Your task to perform on an android device: check the backup settings in the google photos Image 0: 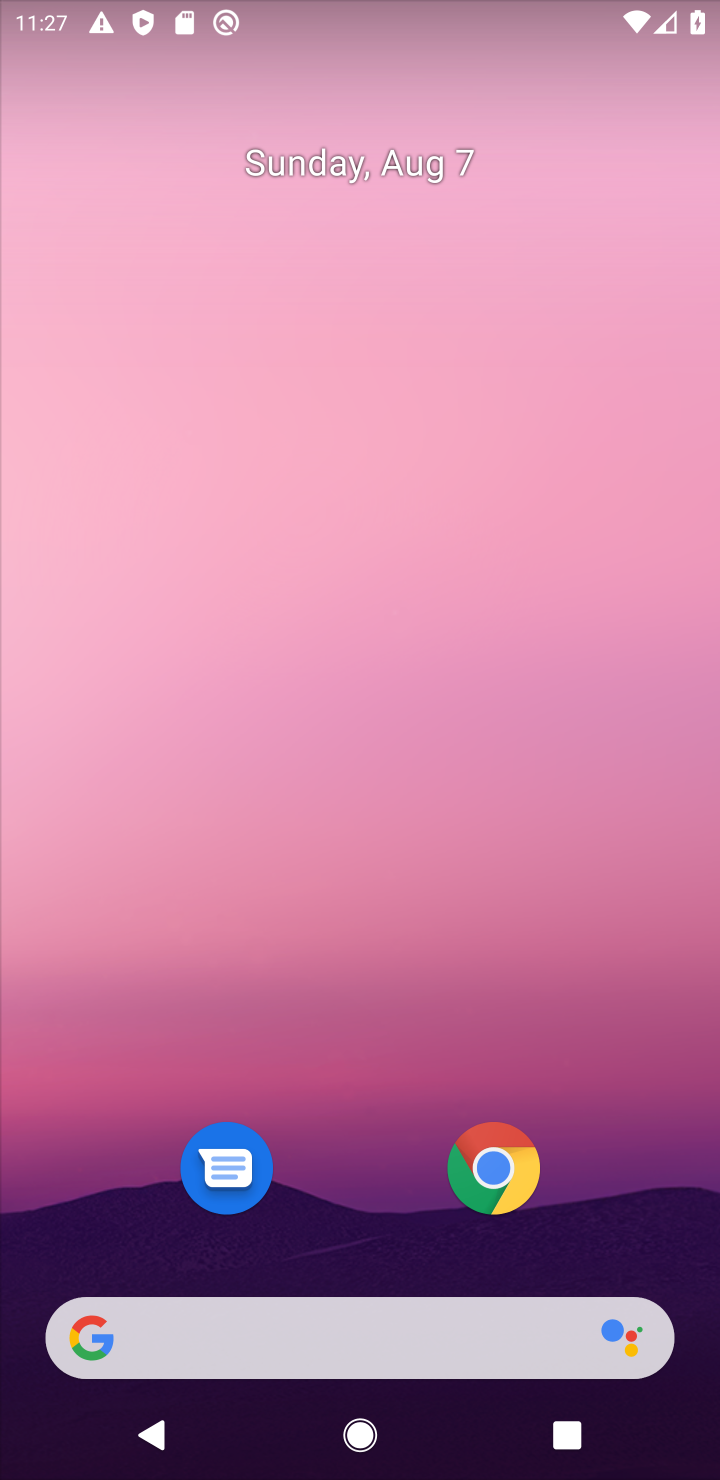
Step 0: drag from (41, 1405) to (383, 471)
Your task to perform on an android device: check the backup settings in the google photos Image 1: 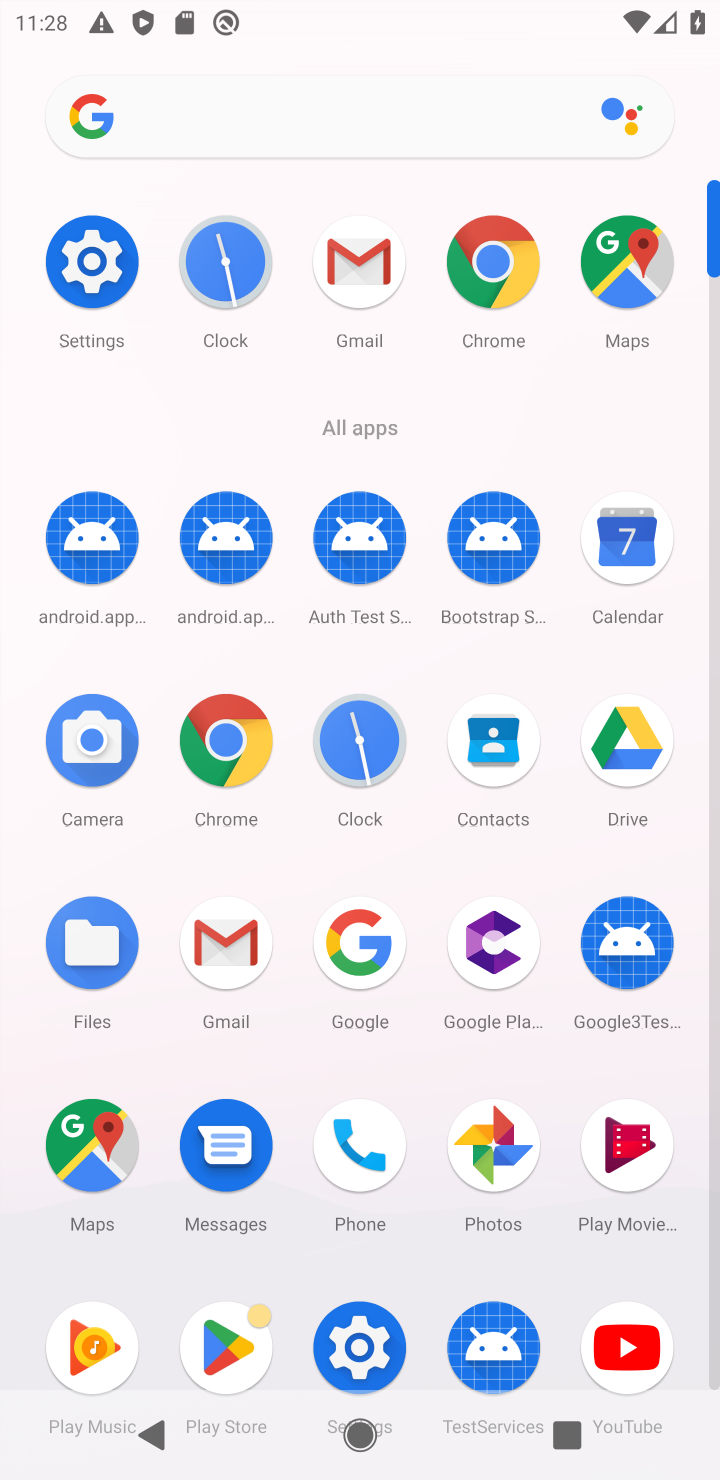
Step 1: click (490, 1133)
Your task to perform on an android device: check the backup settings in the google photos Image 2: 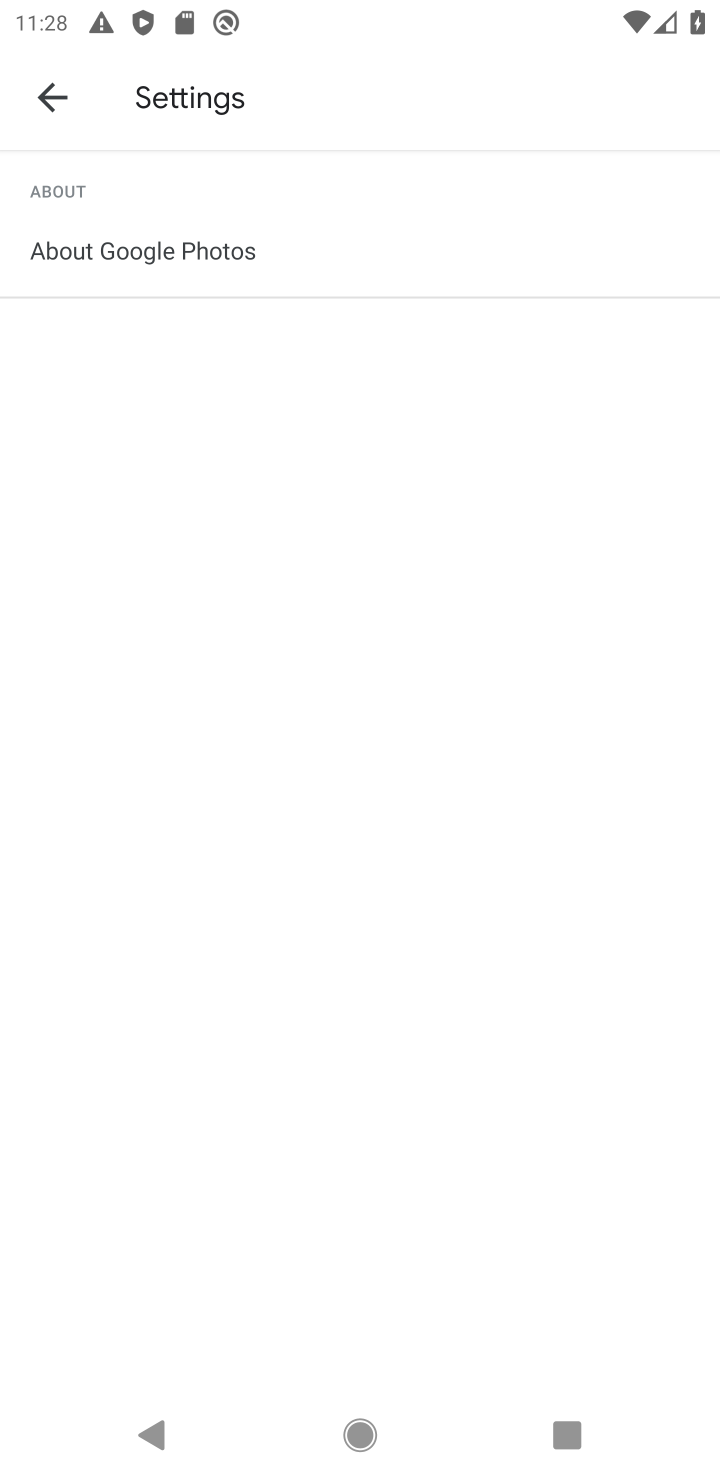
Step 2: click (39, 84)
Your task to perform on an android device: check the backup settings in the google photos Image 3: 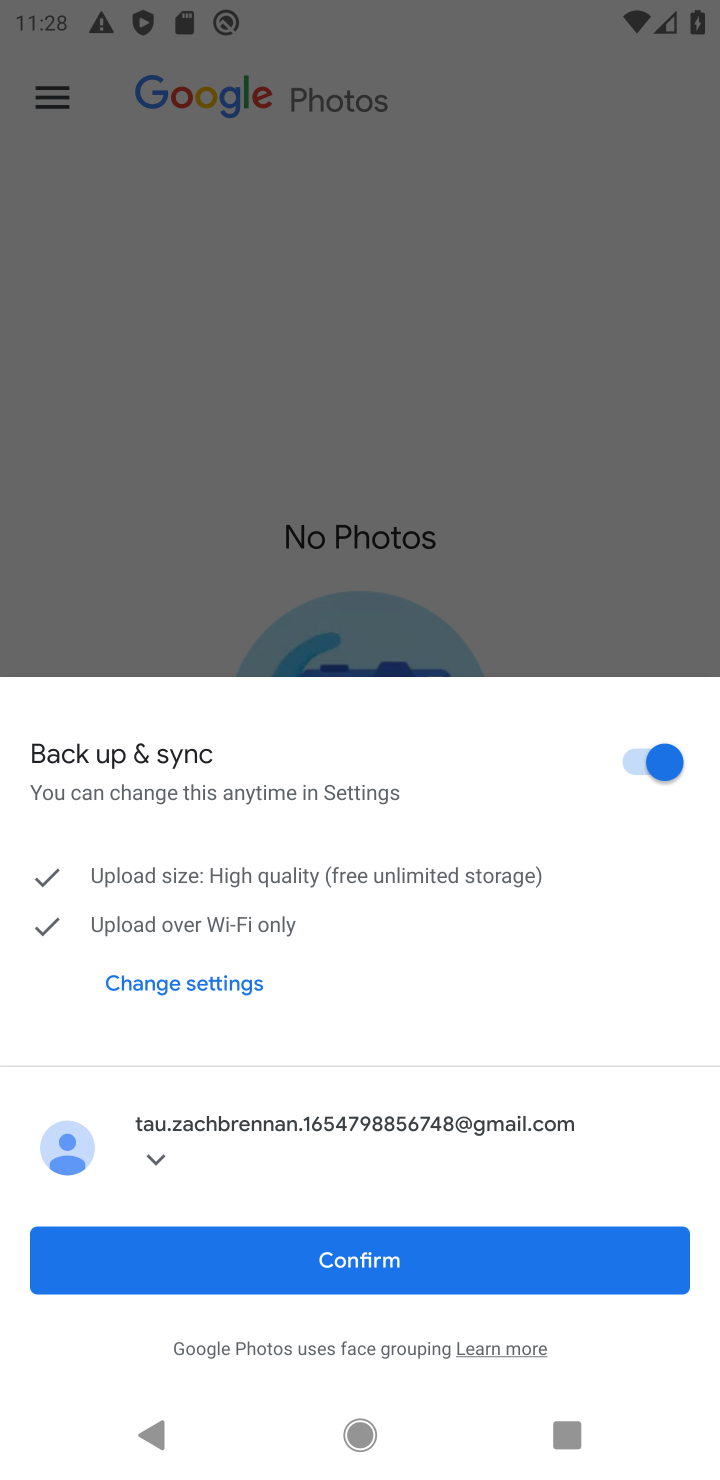
Step 3: click (355, 1272)
Your task to perform on an android device: check the backup settings in the google photos Image 4: 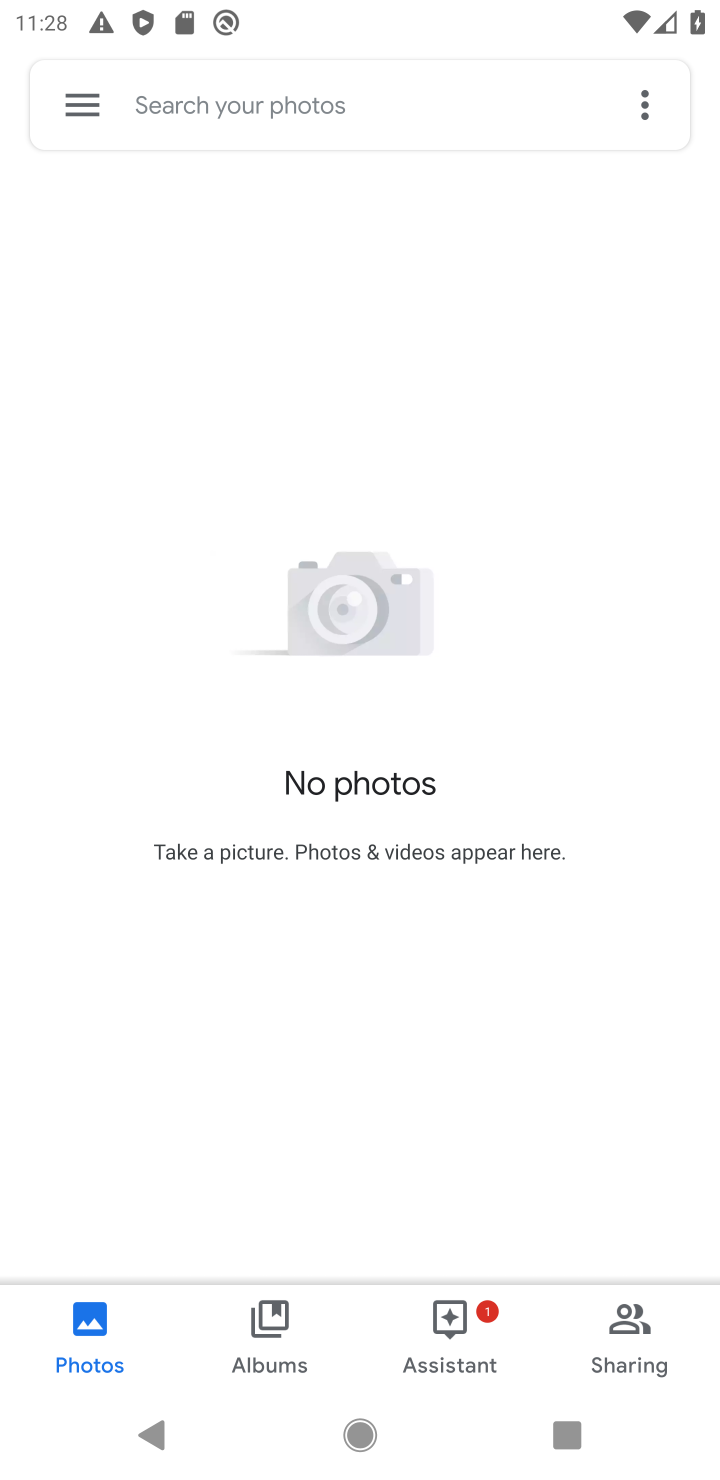
Step 4: click (80, 113)
Your task to perform on an android device: check the backup settings in the google photos Image 5: 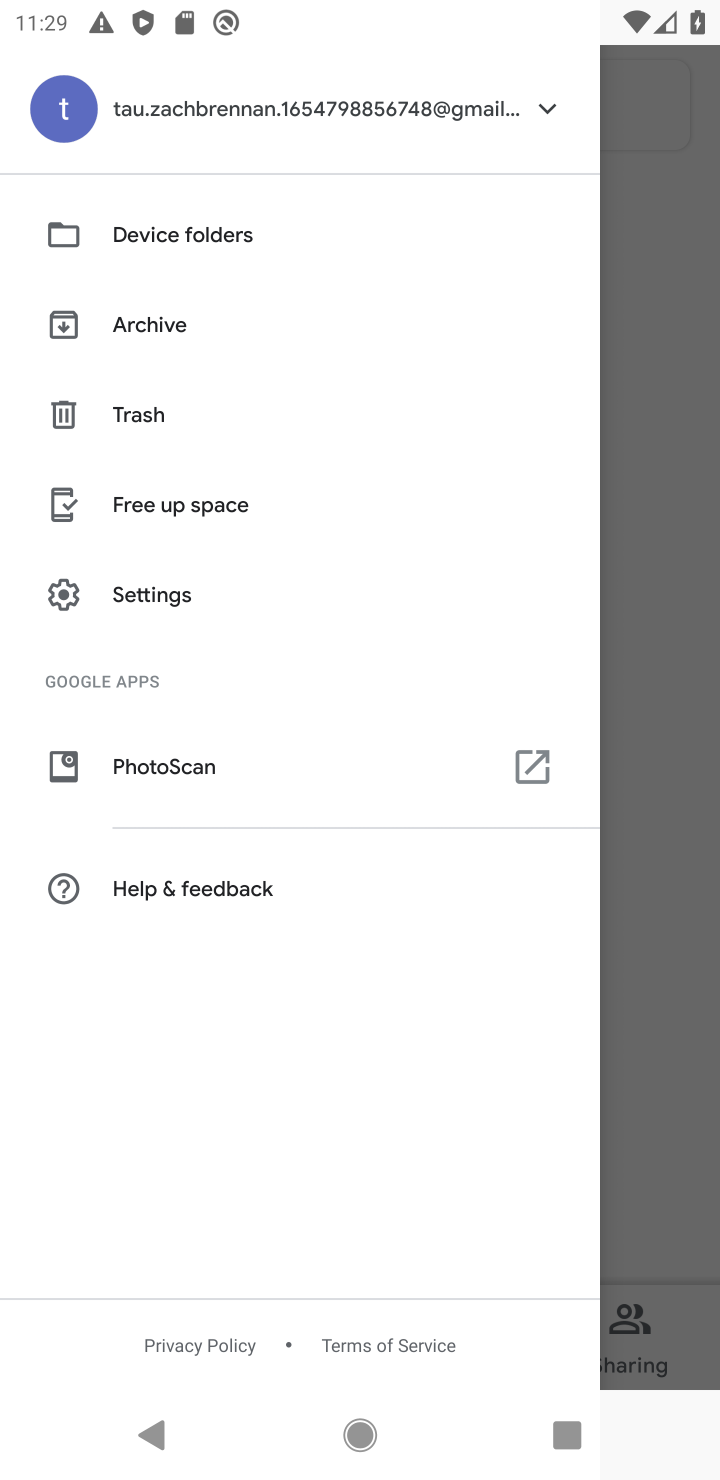
Step 5: click (171, 608)
Your task to perform on an android device: check the backup settings in the google photos Image 6: 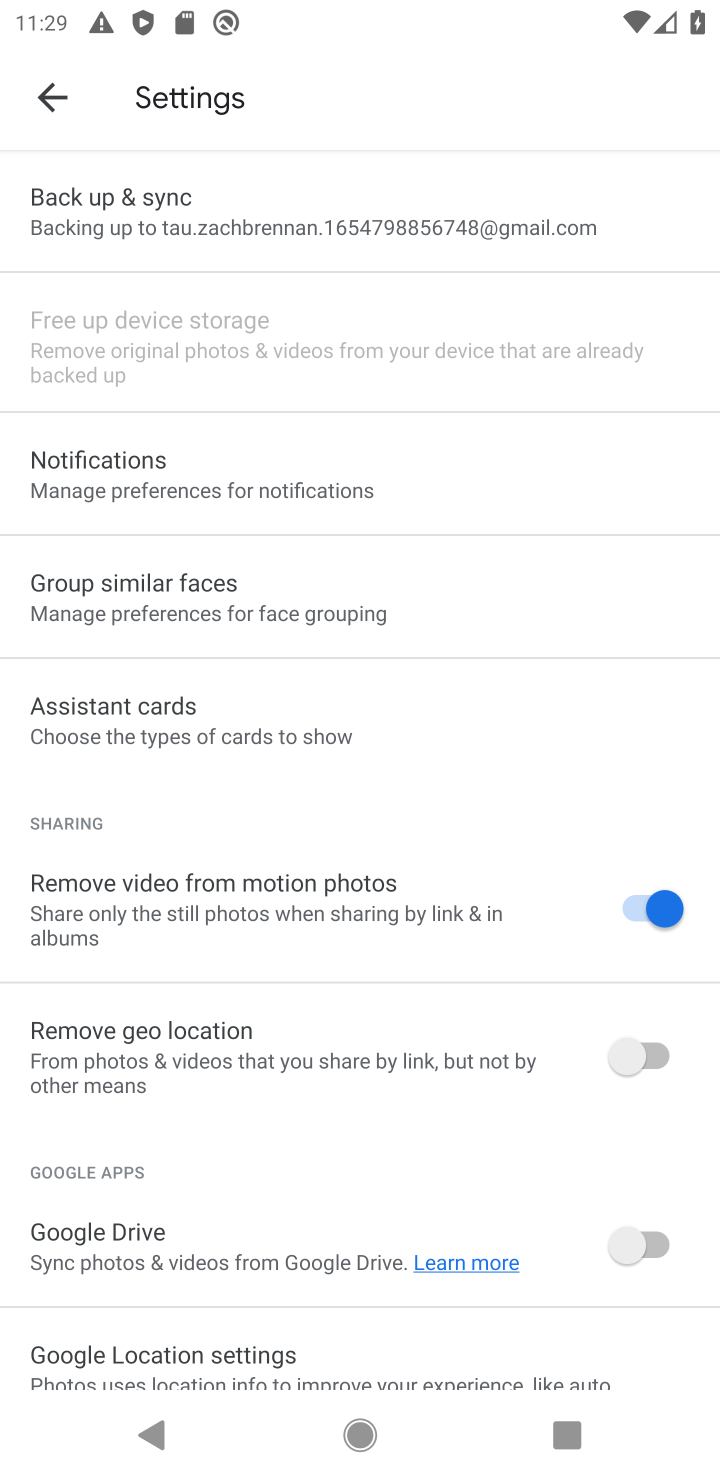
Step 6: click (124, 183)
Your task to perform on an android device: check the backup settings in the google photos Image 7: 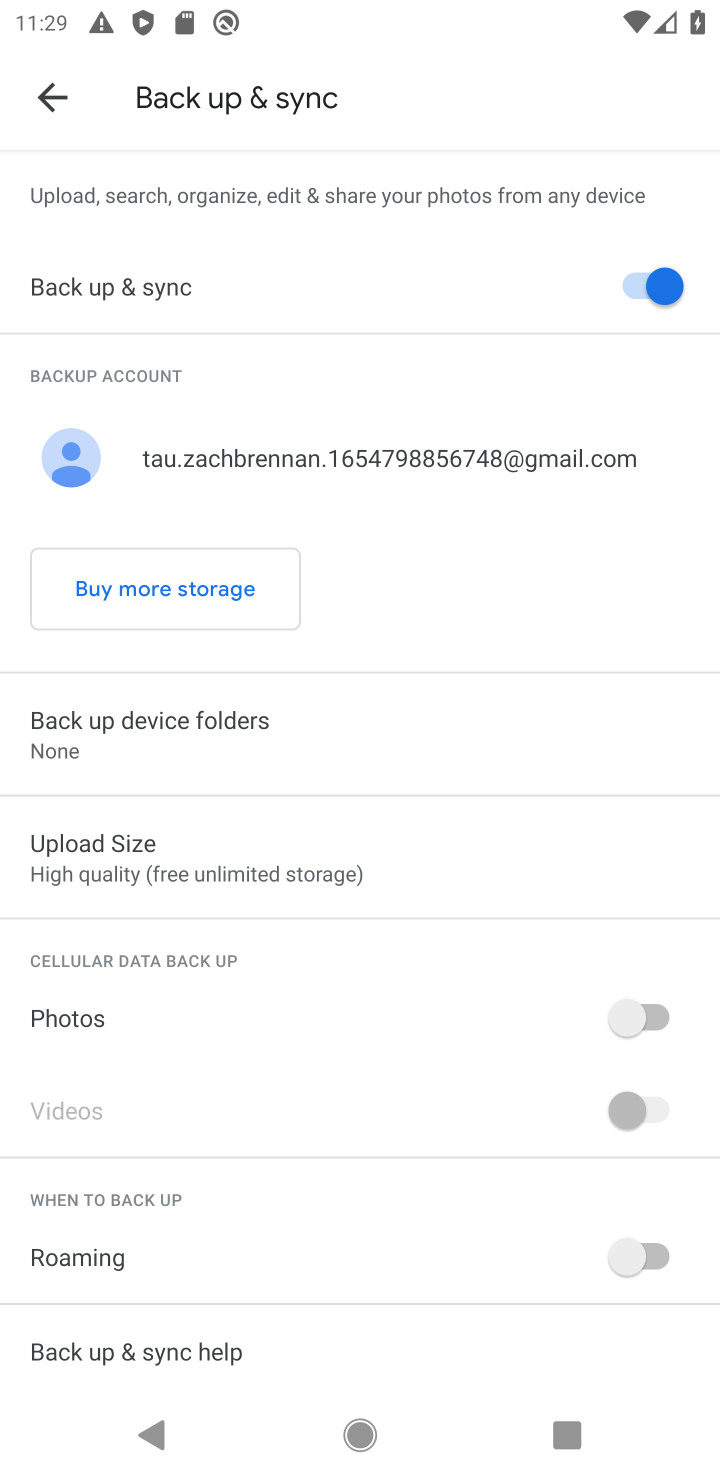
Step 7: task complete